Your task to perform on an android device: change notification settings in the gmail app Image 0: 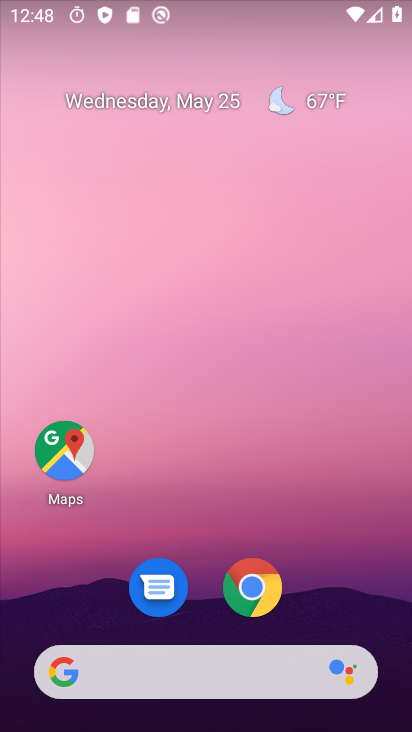
Step 0: drag from (240, 726) to (207, 4)
Your task to perform on an android device: change notification settings in the gmail app Image 1: 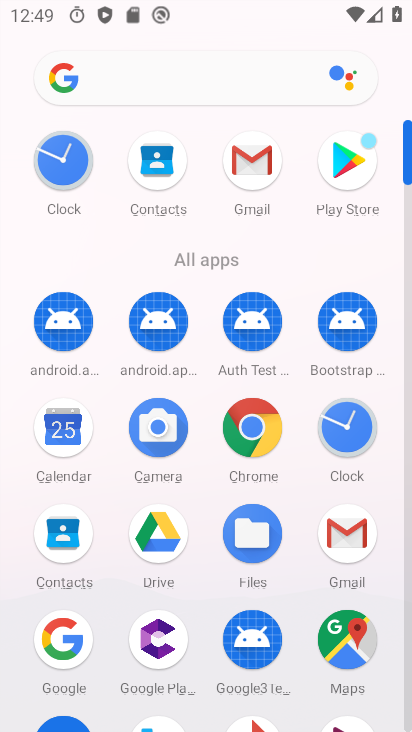
Step 1: click (355, 530)
Your task to perform on an android device: change notification settings in the gmail app Image 2: 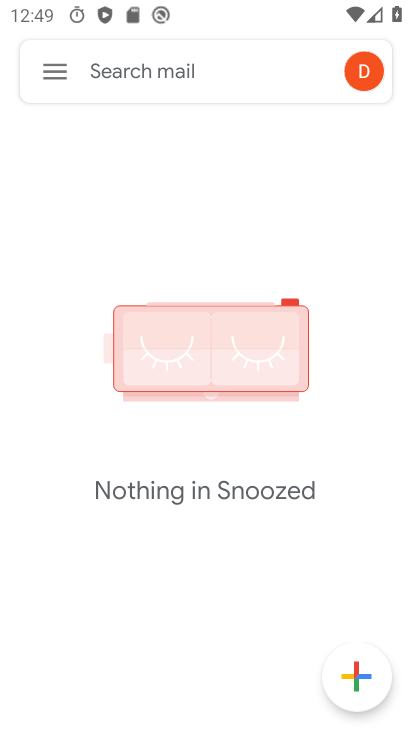
Step 2: click (60, 70)
Your task to perform on an android device: change notification settings in the gmail app Image 3: 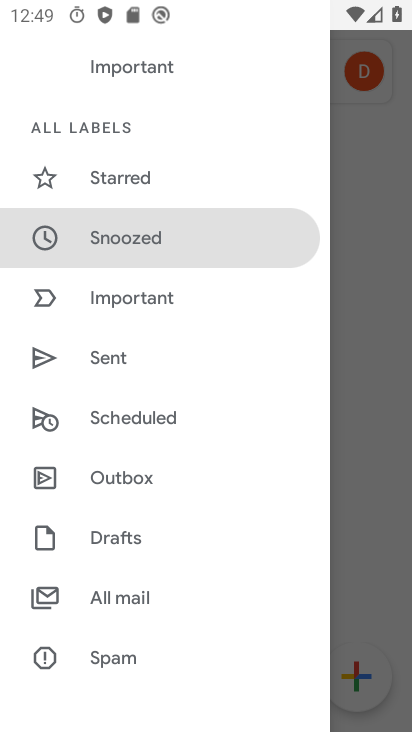
Step 3: drag from (116, 651) to (123, 181)
Your task to perform on an android device: change notification settings in the gmail app Image 4: 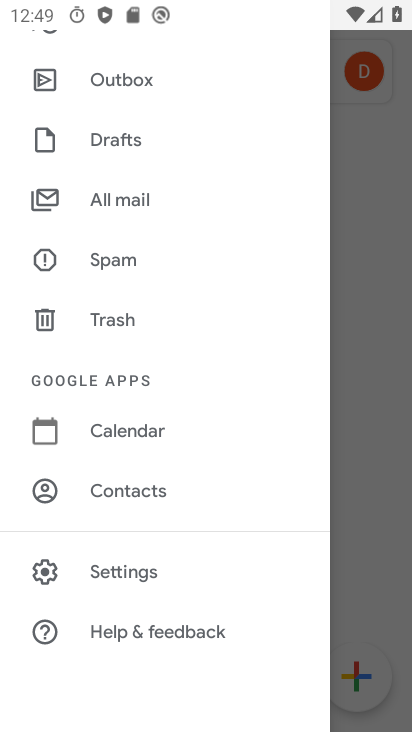
Step 4: click (122, 573)
Your task to perform on an android device: change notification settings in the gmail app Image 5: 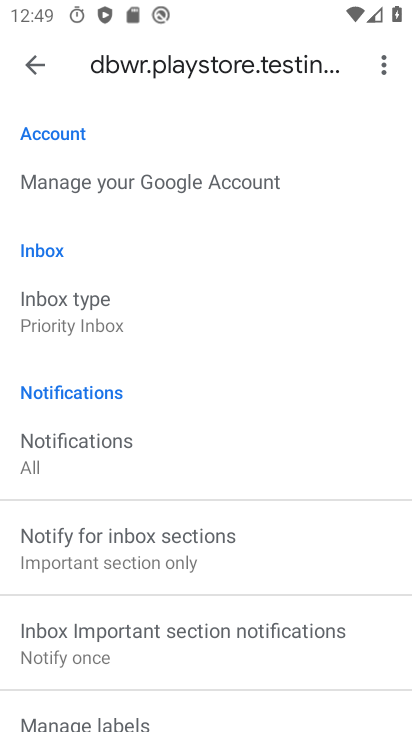
Step 5: click (79, 443)
Your task to perform on an android device: change notification settings in the gmail app Image 6: 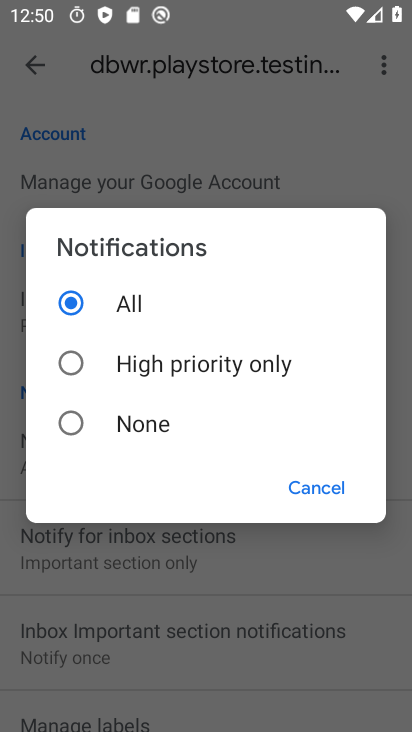
Step 6: click (71, 426)
Your task to perform on an android device: change notification settings in the gmail app Image 7: 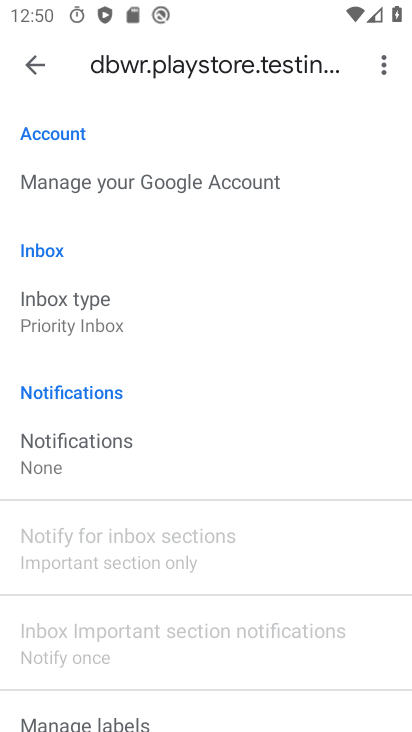
Step 7: task complete